Your task to perform on an android device: Go to accessibility settings Image 0: 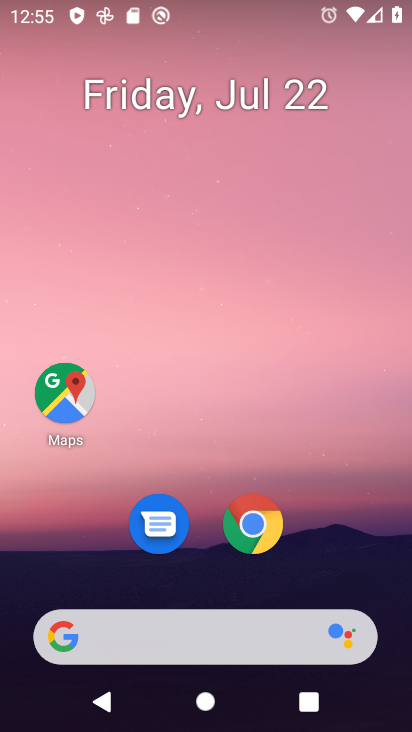
Step 0: drag from (190, 639) to (281, 161)
Your task to perform on an android device: Go to accessibility settings Image 1: 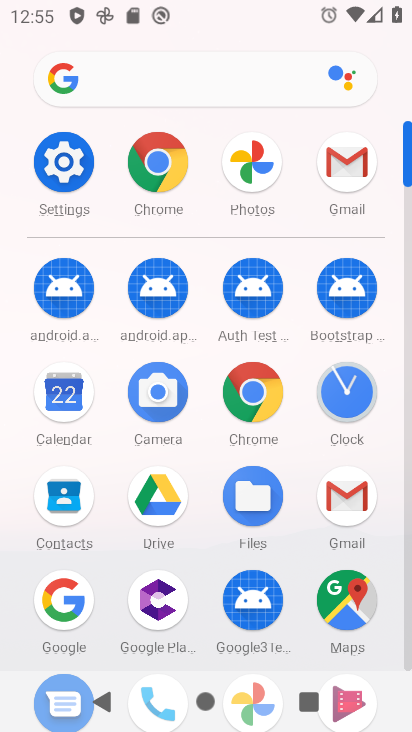
Step 1: click (69, 172)
Your task to perform on an android device: Go to accessibility settings Image 2: 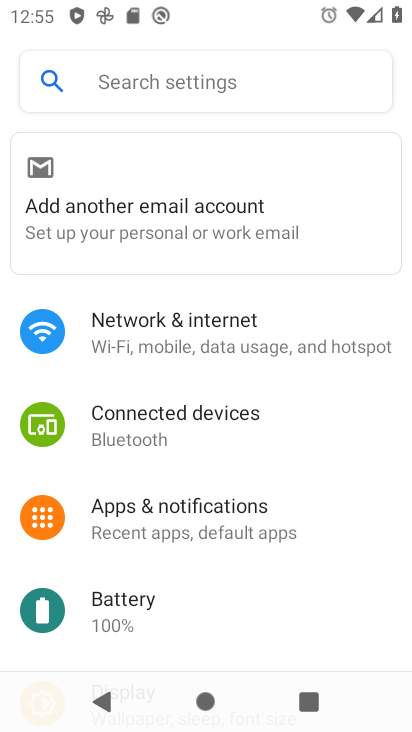
Step 2: drag from (197, 638) to (338, 52)
Your task to perform on an android device: Go to accessibility settings Image 3: 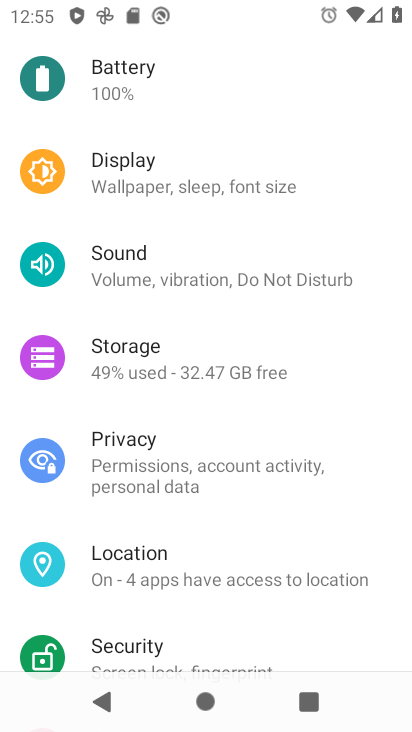
Step 3: drag from (215, 588) to (348, 104)
Your task to perform on an android device: Go to accessibility settings Image 4: 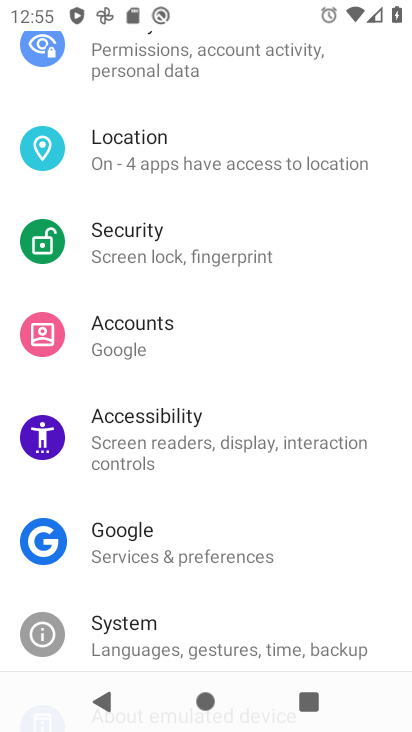
Step 4: click (162, 439)
Your task to perform on an android device: Go to accessibility settings Image 5: 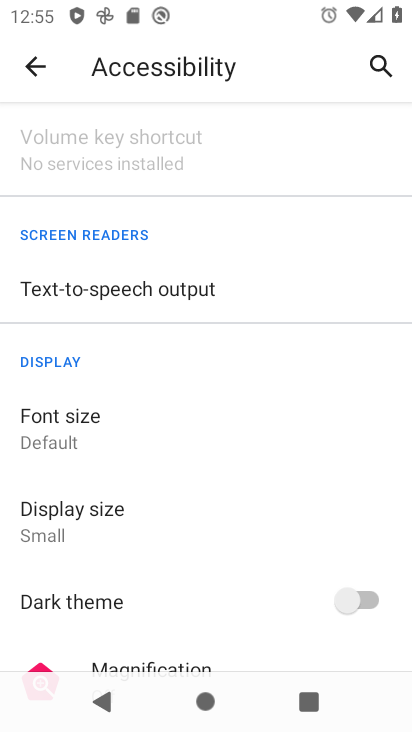
Step 5: task complete